Your task to perform on an android device: turn on notifications settings in the gmail app Image 0: 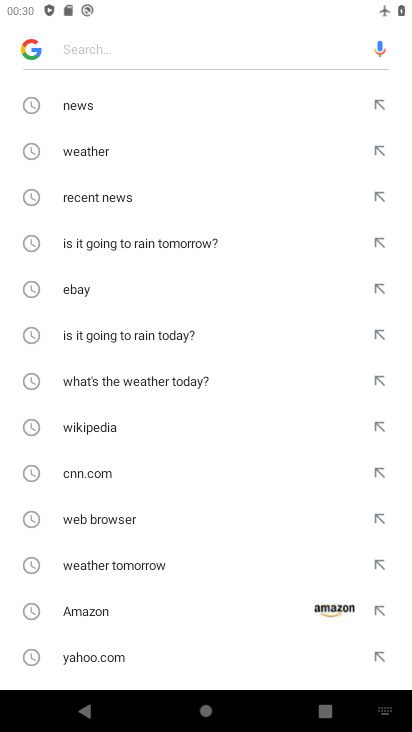
Step 0: press home button
Your task to perform on an android device: turn on notifications settings in the gmail app Image 1: 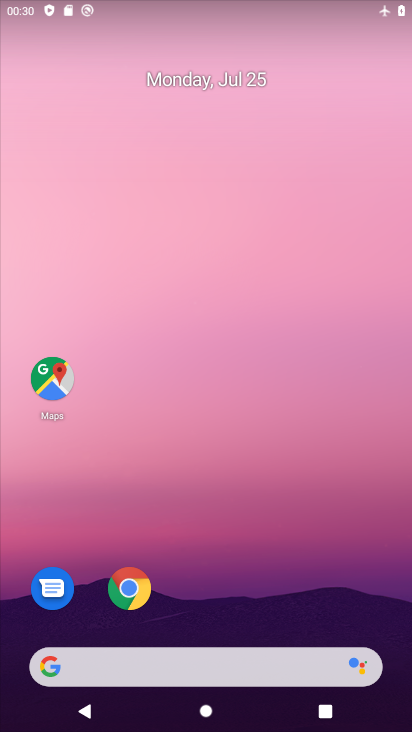
Step 1: drag from (186, 629) to (237, 14)
Your task to perform on an android device: turn on notifications settings in the gmail app Image 2: 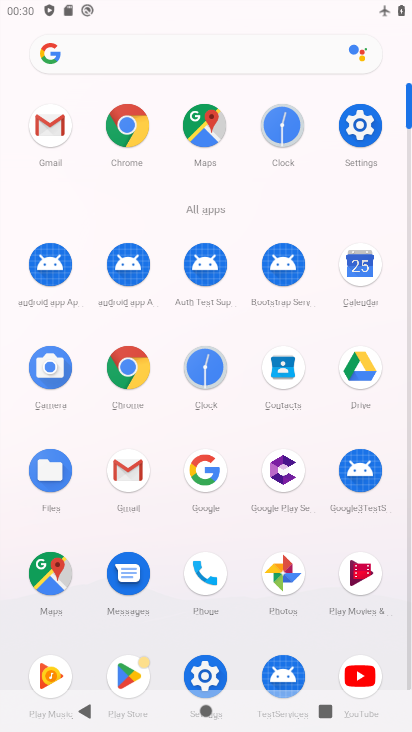
Step 2: click (128, 476)
Your task to perform on an android device: turn on notifications settings in the gmail app Image 3: 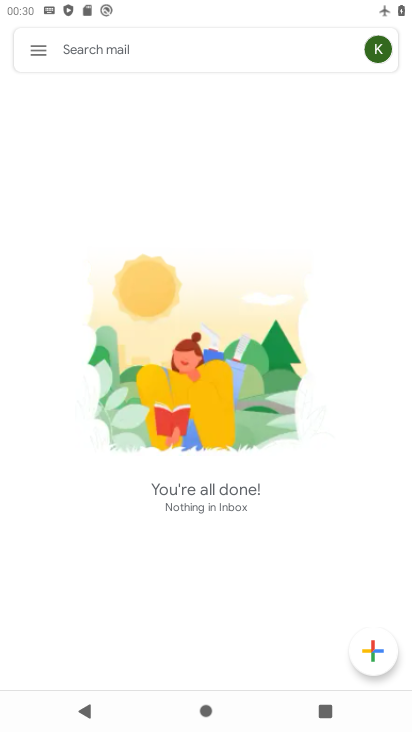
Step 3: click (41, 50)
Your task to perform on an android device: turn on notifications settings in the gmail app Image 4: 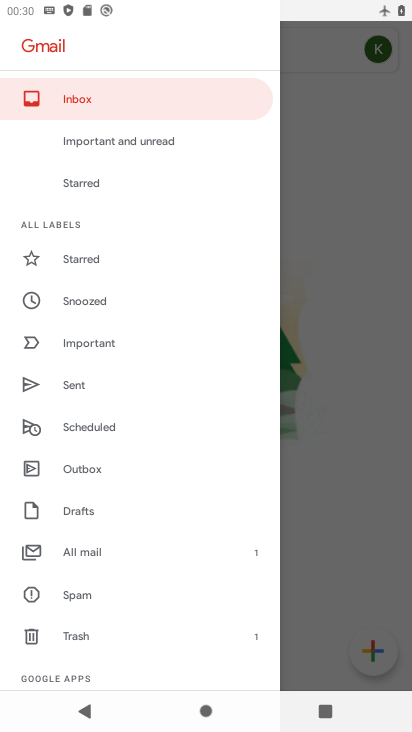
Step 4: drag from (90, 611) to (133, 180)
Your task to perform on an android device: turn on notifications settings in the gmail app Image 5: 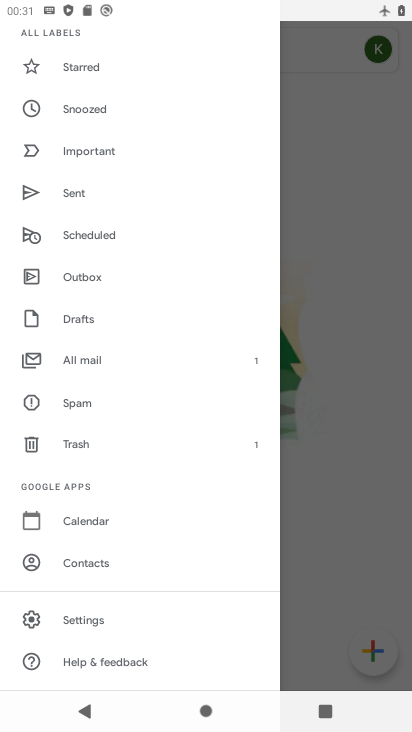
Step 5: click (83, 625)
Your task to perform on an android device: turn on notifications settings in the gmail app Image 6: 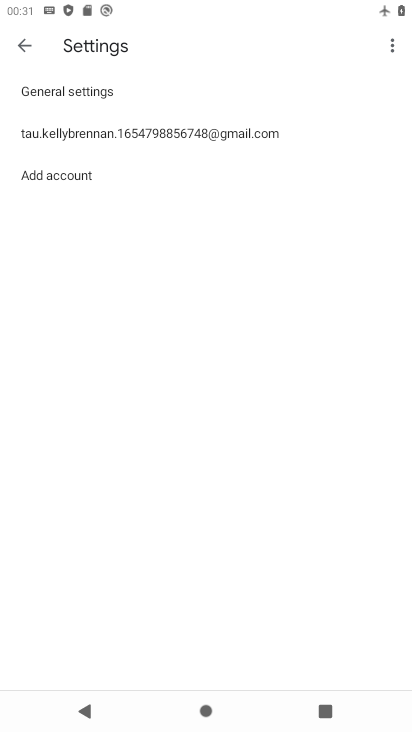
Step 6: click (83, 93)
Your task to perform on an android device: turn on notifications settings in the gmail app Image 7: 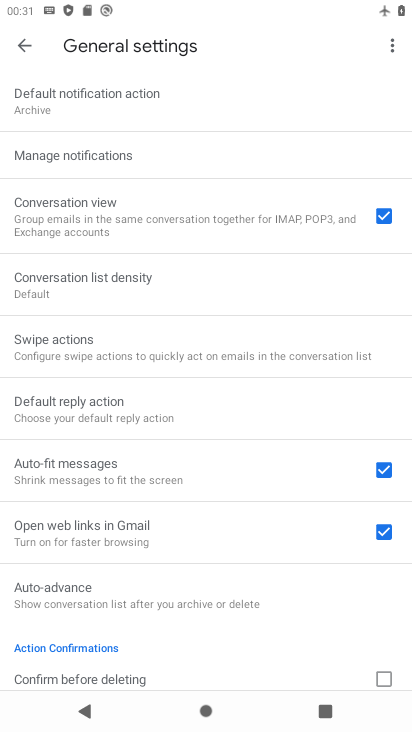
Step 7: click (85, 166)
Your task to perform on an android device: turn on notifications settings in the gmail app Image 8: 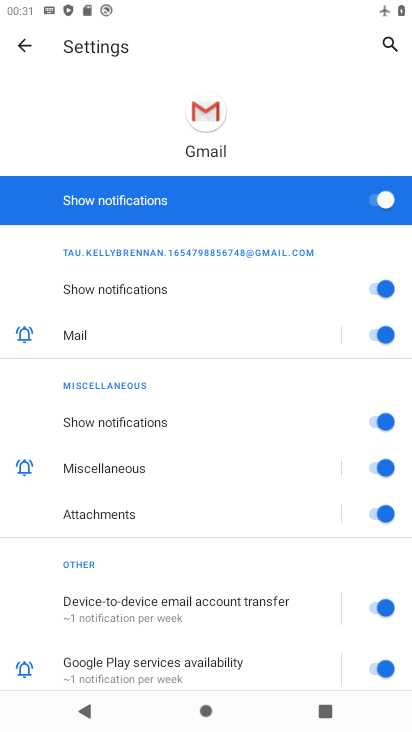
Step 8: task complete